Your task to perform on an android device: clear history in the chrome app Image 0: 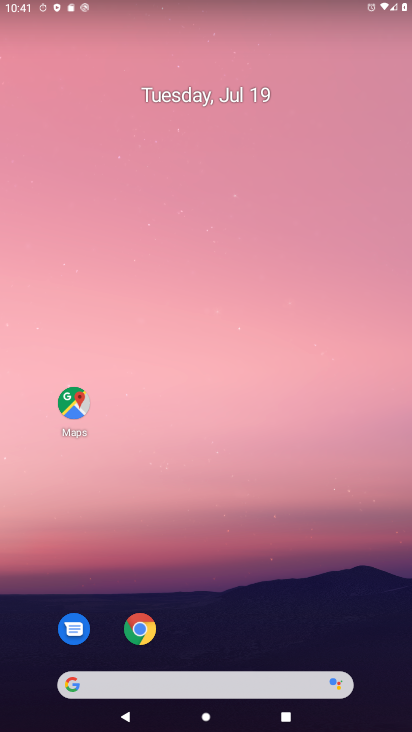
Step 0: drag from (239, 660) to (207, 140)
Your task to perform on an android device: clear history in the chrome app Image 1: 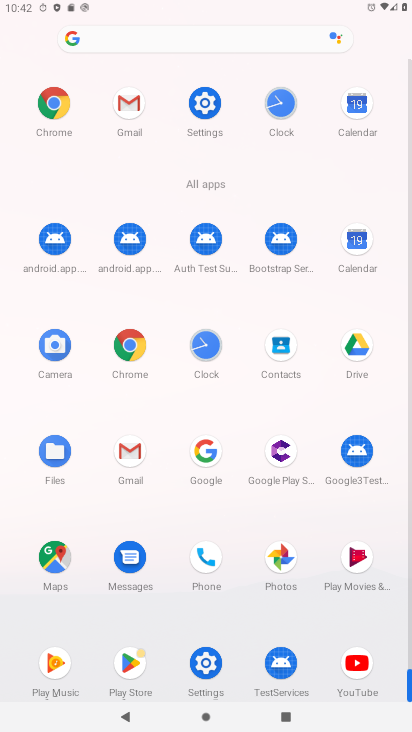
Step 1: click (131, 346)
Your task to perform on an android device: clear history in the chrome app Image 2: 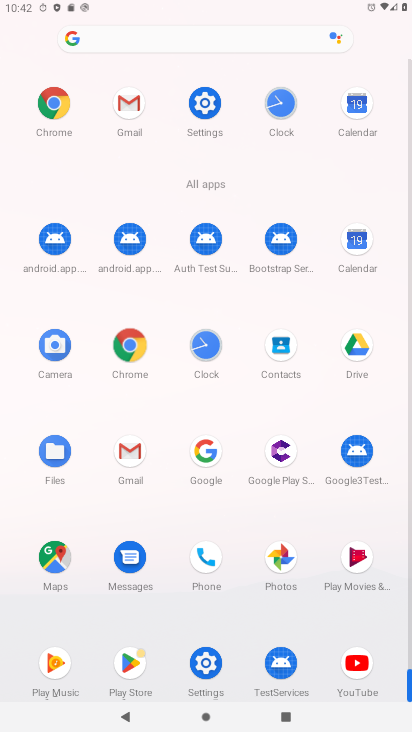
Step 2: click (147, 339)
Your task to perform on an android device: clear history in the chrome app Image 3: 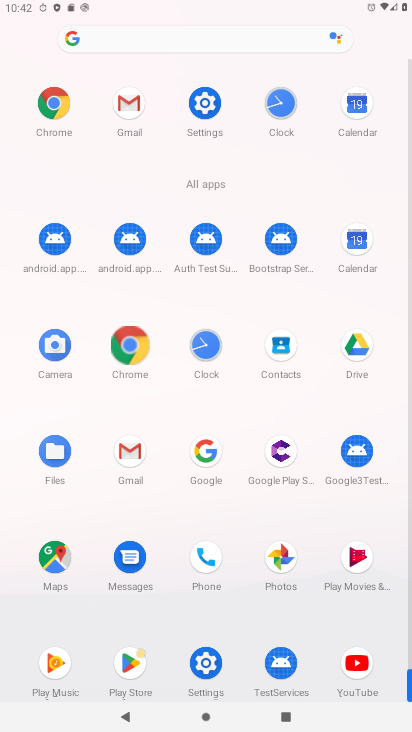
Step 3: click (158, 339)
Your task to perform on an android device: clear history in the chrome app Image 4: 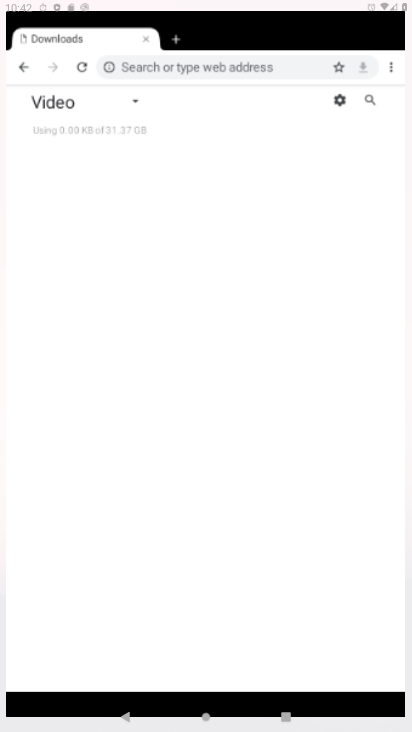
Step 4: click (135, 340)
Your task to perform on an android device: clear history in the chrome app Image 5: 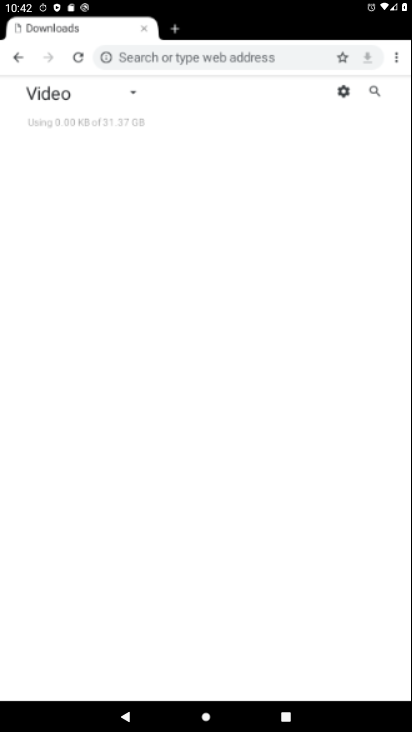
Step 5: click (135, 341)
Your task to perform on an android device: clear history in the chrome app Image 6: 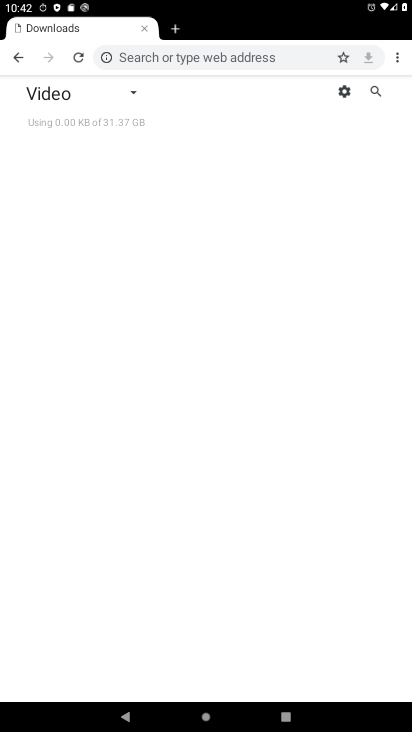
Step 6: drag from (396, 55) to (285, 181)
Your task to perform on an android device: clear history in the chrome app Image 7: 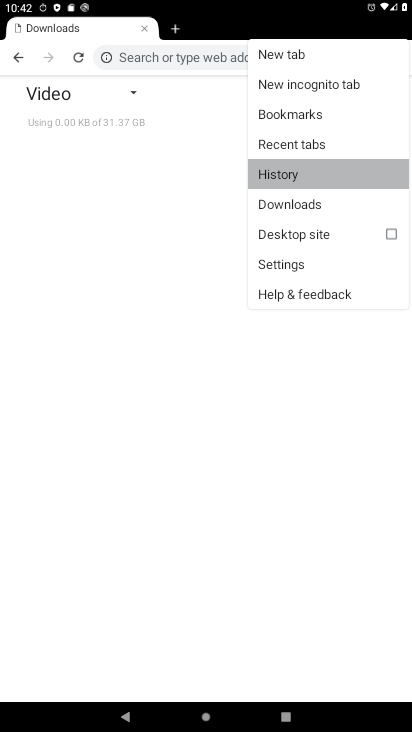
Step 7: click (285, 181)
Your task to perform on an android device: clear history in the chrome app Image 8: 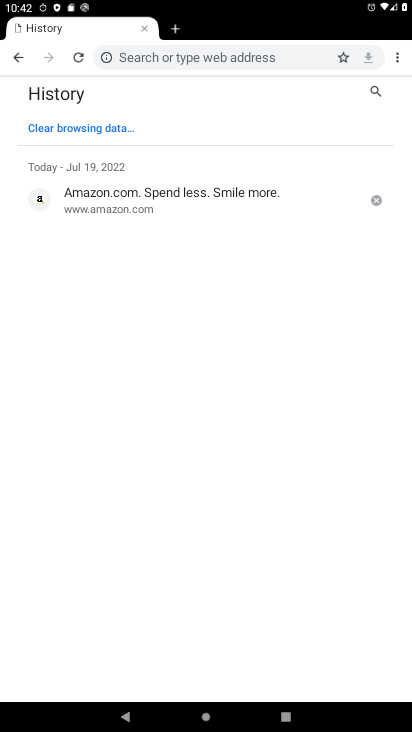
Step 8: click (376, 199)
Your task to perform on an android device: clear history in the chrome app Image 9: 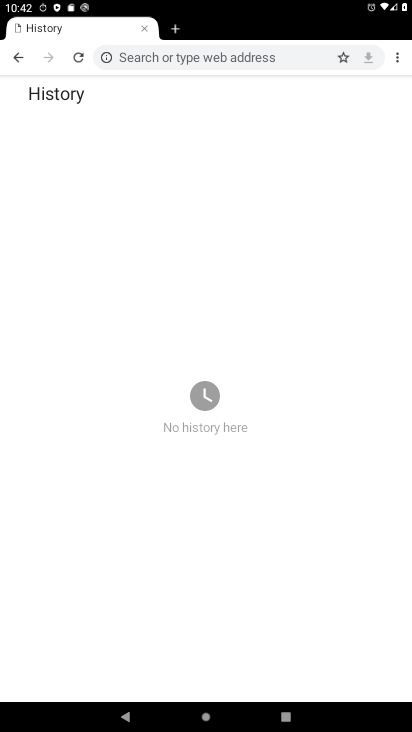
Step 9: task complete